Your task to perform on an android device: Open Reddit.com Image 0: 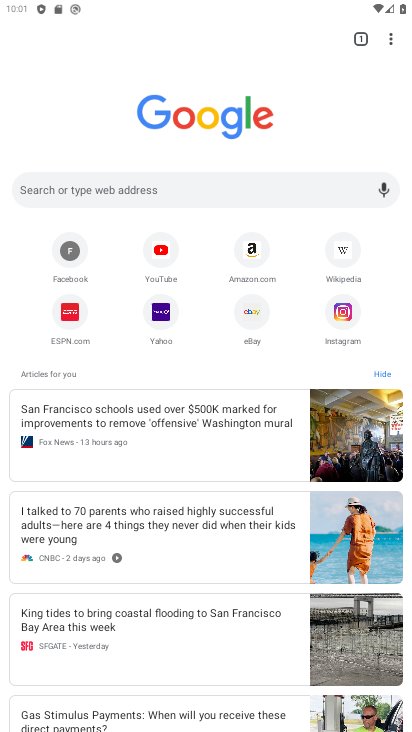
Step 0: press home button
Your task to perform on an android device: Open Reddit.com Image 1: 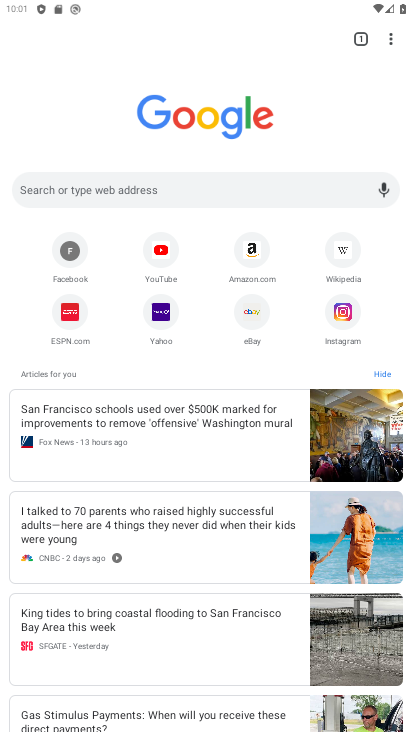
Step 1: press home button
Your task to perform on an android device: Open Reddit.com Image 2: 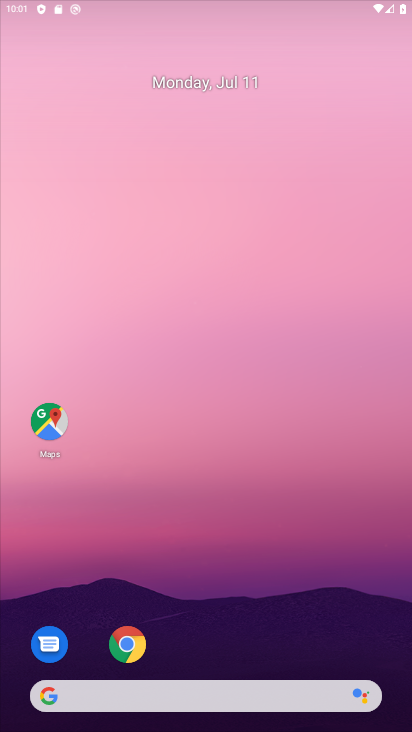
Step 2: press home button
Your task to perform on an android device: Open Reddit.com Image 3: 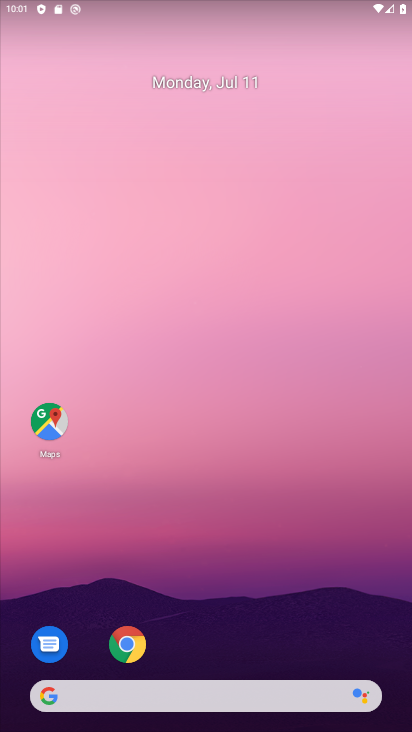
Step 3: press home button
Your task to perform on an android device: Open Reddit.com Image 4: 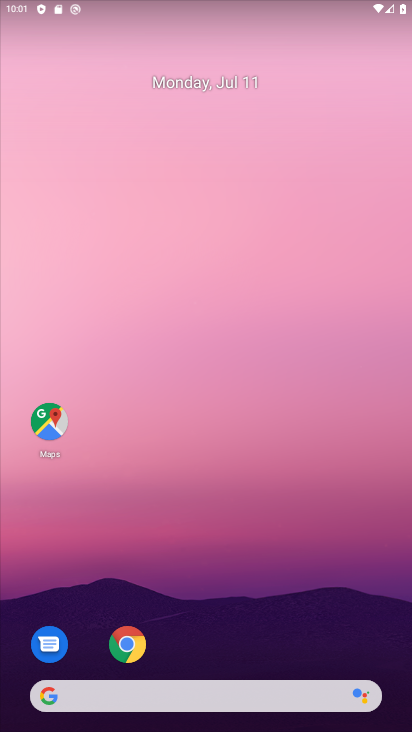
Step 4: click (123, 656)
Your task to perform on an android device: Open Reddit.com Image 5: 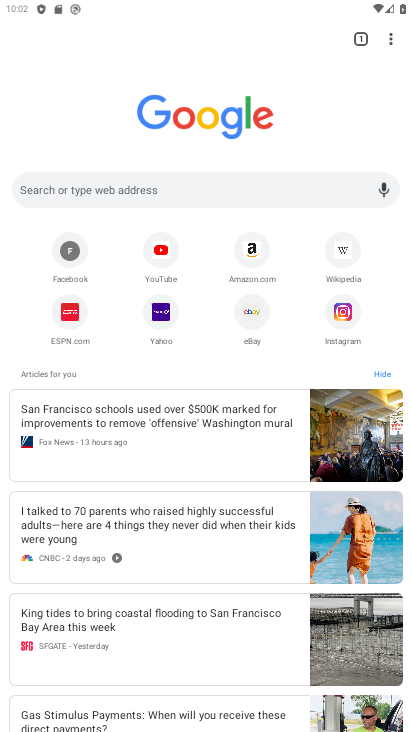
Step 5: type " Reddit.com"
Your task to perform on an android device: Open Reddit.com Image 6: 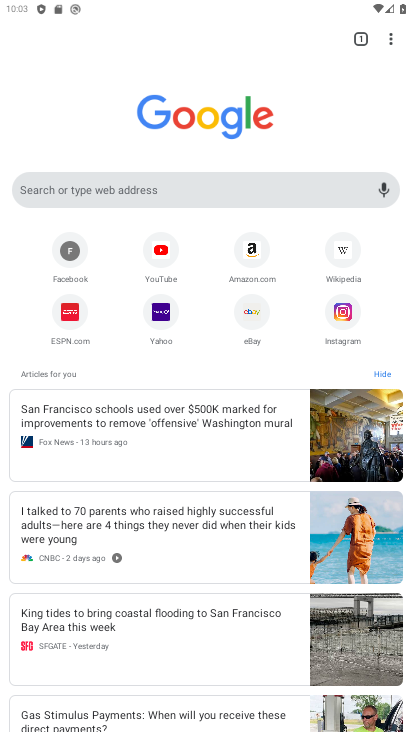
Step 6: click (226, 185)
Your task to perform on an android device: Open Reddit.com Image 7: 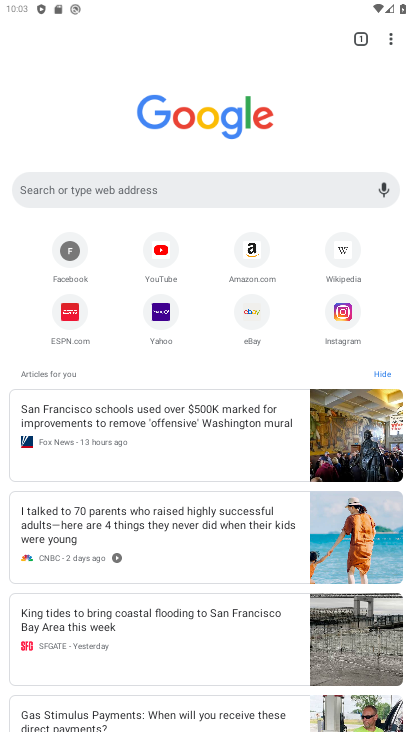
Step 7: click (226, 185)
Your task to perform on an android device: Open Reddit.com Image 8: 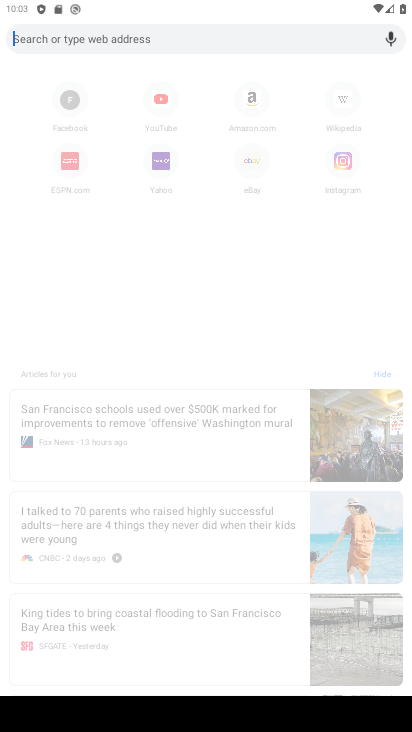
Step 8: type " Reddit.com"
Your task to perform on an android device: Open Reddit.com Image 9: 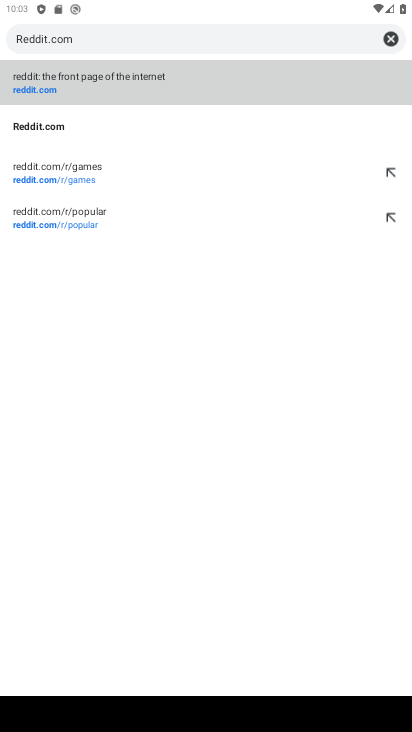
Step 9: click (99, 72)
Your task to perform on an android device: Open Reddit.com Image 10: 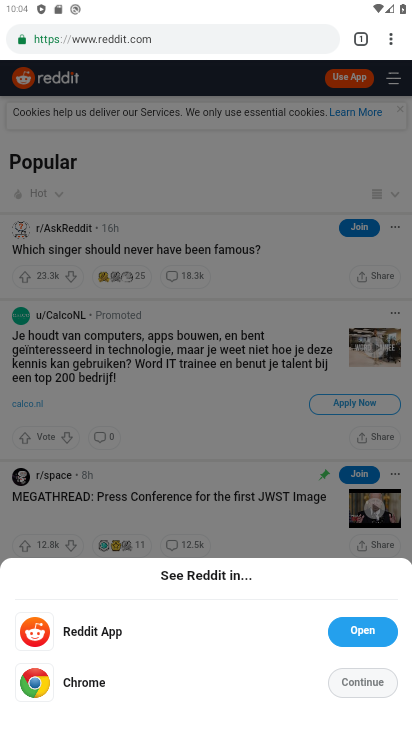
Step 10: task complete